Your task to perform on an android device: Go to settings Image 0: 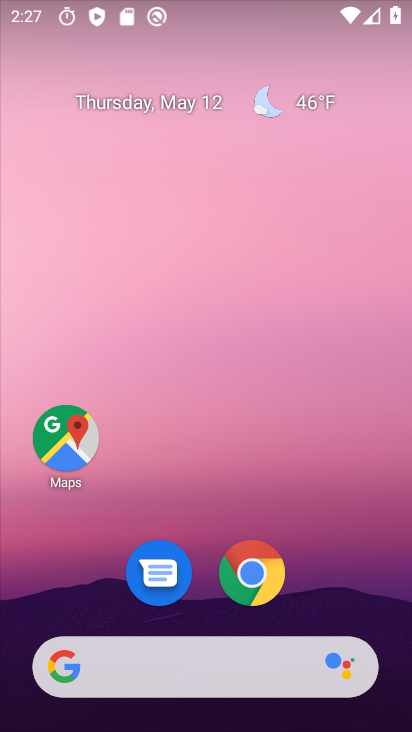
Step 0: drag from (199, 624) to (225, 87)
Your task to perform on an android device: Go to settings Image 1: 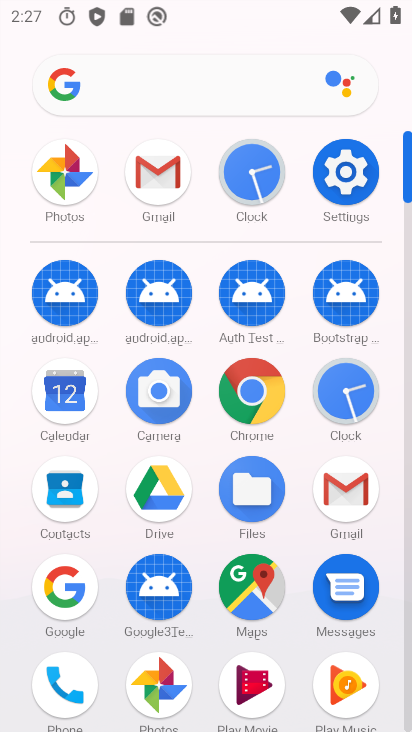
Step 1: click (343, 172)
Your task to perform on an android device: Go to settings Image 2: 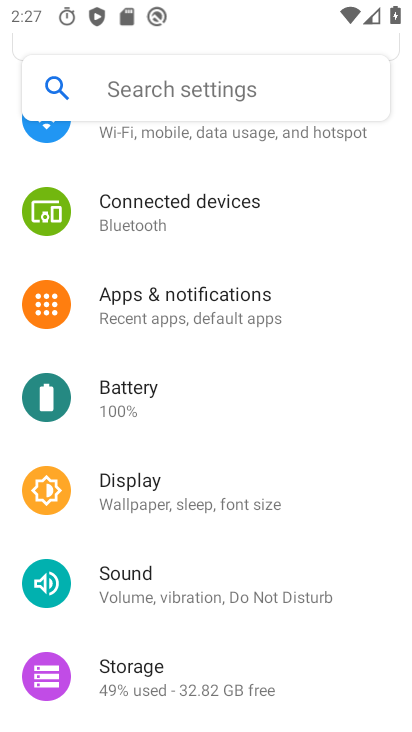
Step 2: task complete